Your task to perform on an android device: turn on bluetooth scan Image 0: 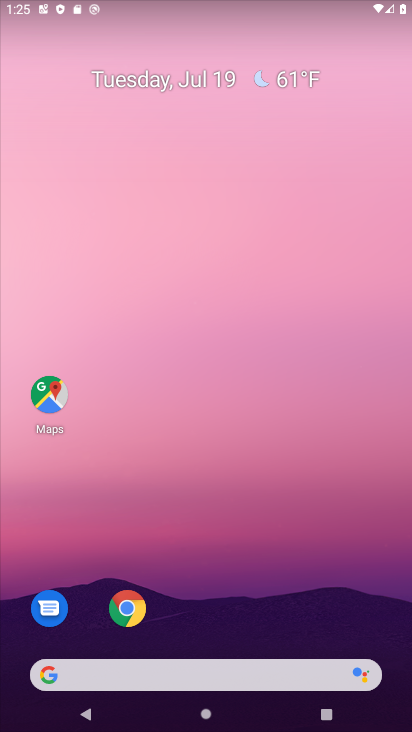
Step 0: drag from (409, 530) to (363, 0)
Your task to perform on an android device: turn on bluetooth scan Image 1: 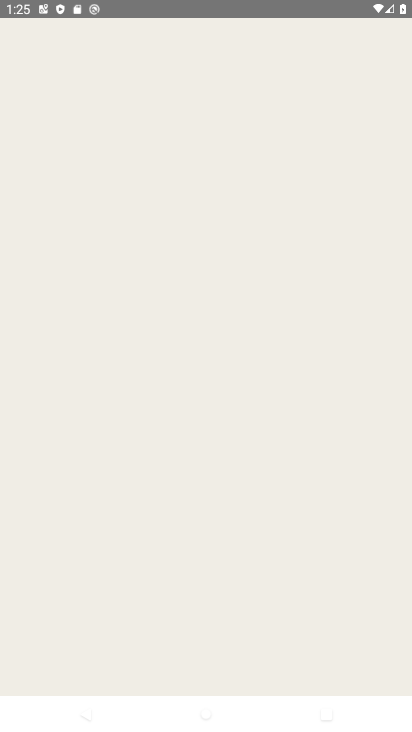
Step 1: press home button
Your task to perform on an android device: turn on bluetooth scan Image 2: 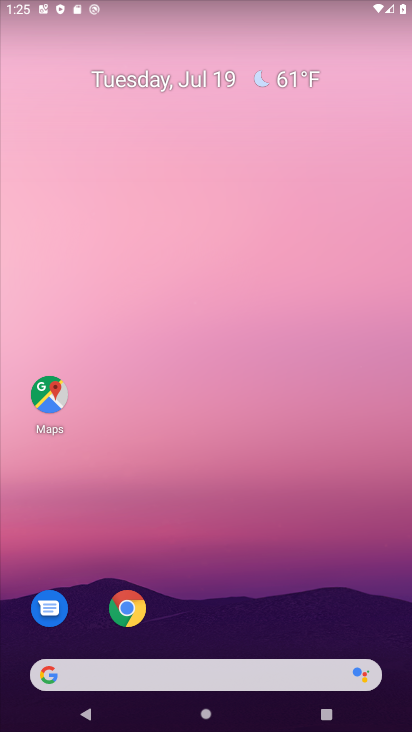
Step 2: drag from (274, 578) to (261, 52)
Your task to perform on an android device: turn on bluetooth scan Image 3: 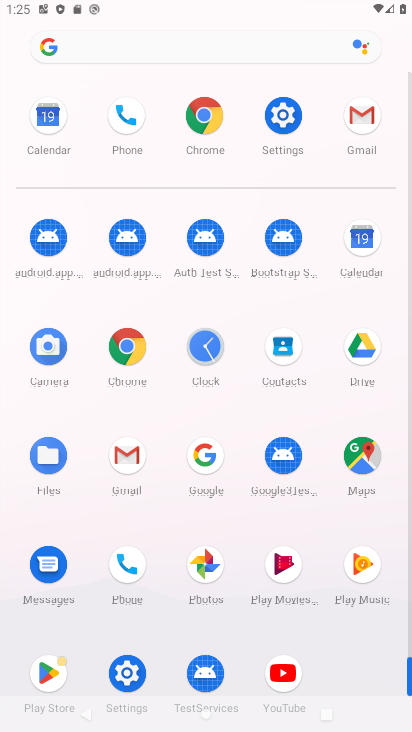
Step 3: click (294, 107)
Your task to perform on an android device: turn on bluetooth scan Image 4: 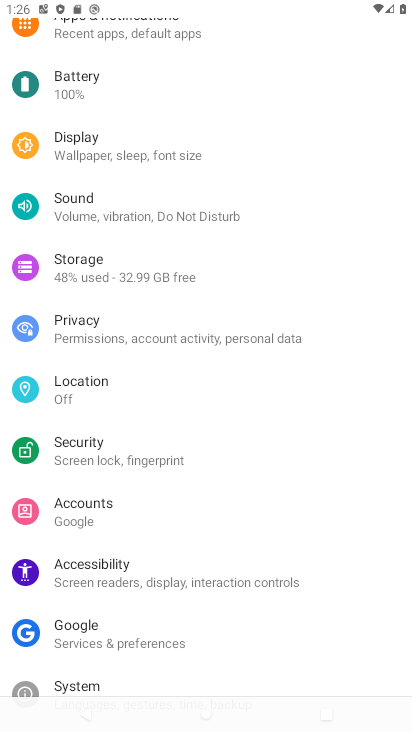
Step 4: click (78, 387)
Your task to perform on an android device: turn on bluetooth scan Image 5: 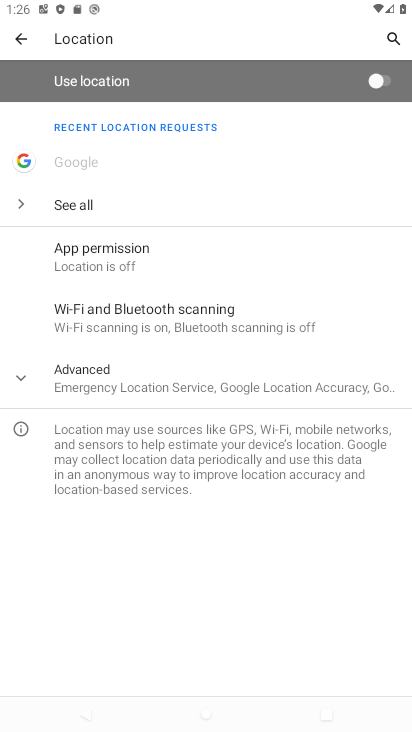
Step 5: click (114, 308)
Your task to perform on an android device: turn on bluetooth scan Image 6: 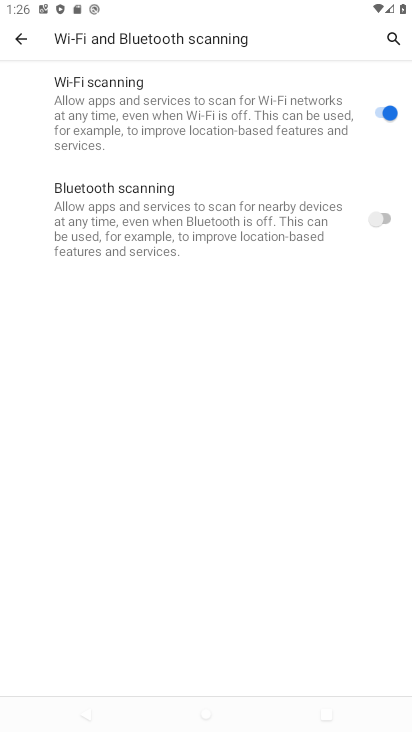
Step 6: click (378, 224)
Your task to perform on an android device: turn on bluetooth scan Image 7: 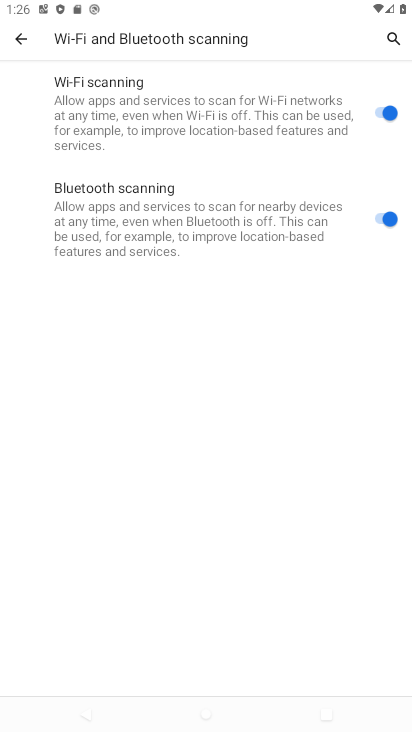
Step 7: task complete